Your task to perform on an android device: Go to wifi settings Image 0: 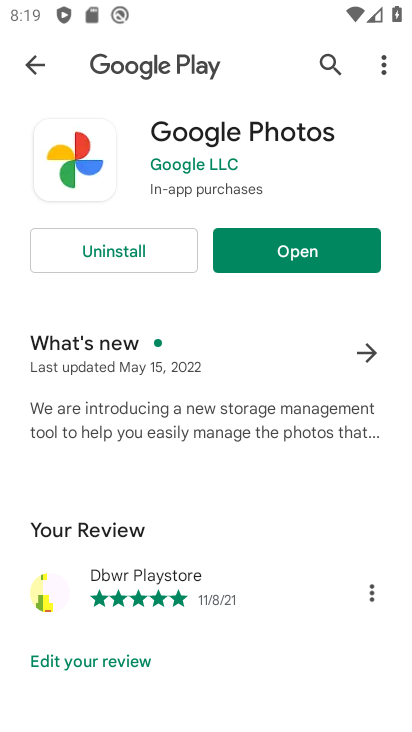
Step 0: press home button
Your task to perform on an android device: Go to wifi settings Image 1: 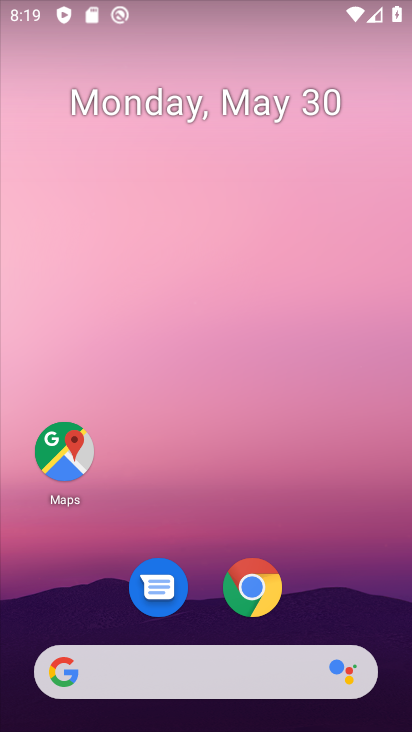
Step 1: drag from (201, 548) to (241, 63)
Your task to perform on an android device: Go to wifi settings Image 2: 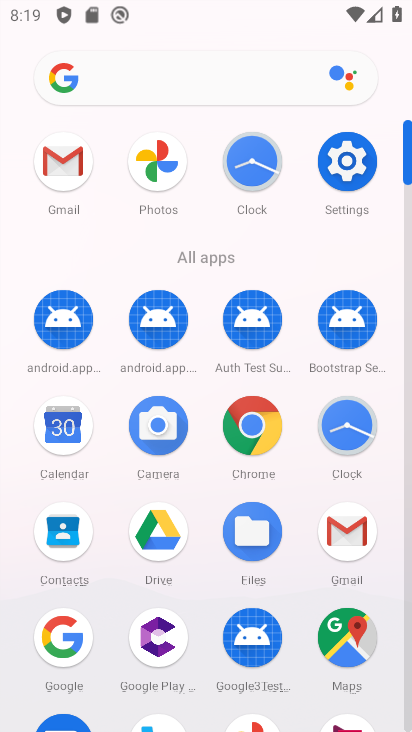
Step 2: click (336, 159)
Your task to perform on an android device: Go to wifi settings Image 3: 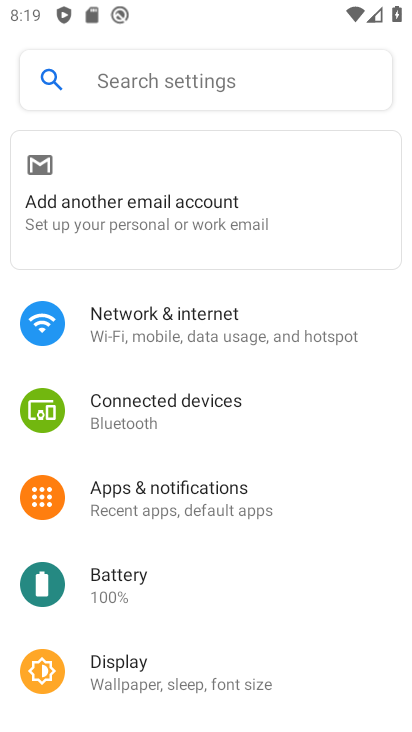
Step 3: click (201, 329)
Your task to perform on an android device: Go to wifi settings Image 4: 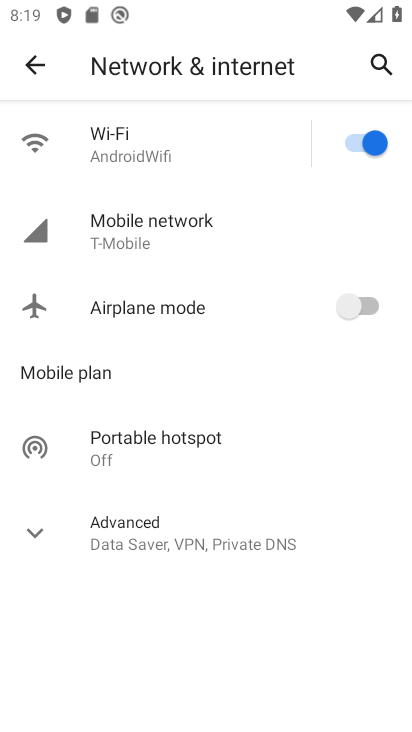
Step 4: click (175, 151)
Your task to perform on an android device: Go to wifi settings Image 5: 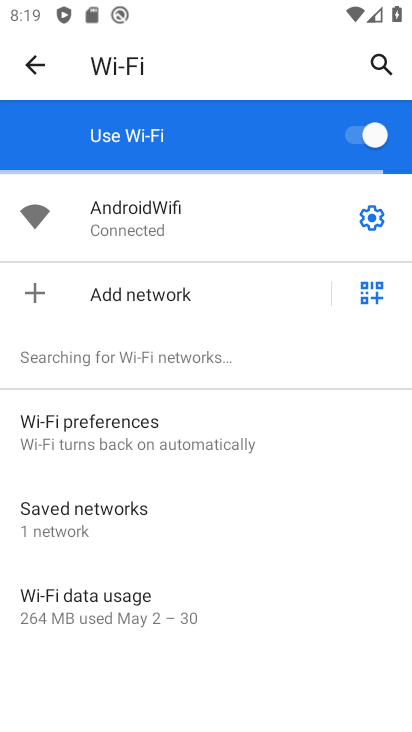
Step 5: task complete